Your task to perform on an android device: Go to Yahoo.com Image 0: 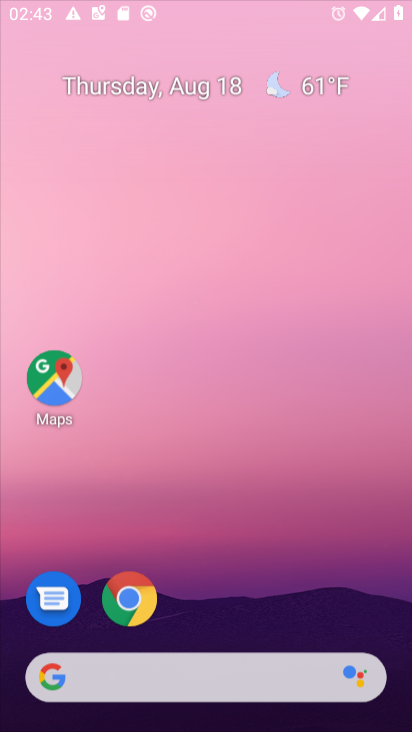
Step 0: press home button
Your task to perform on an android device: Go to Yahoo.com Image 1: 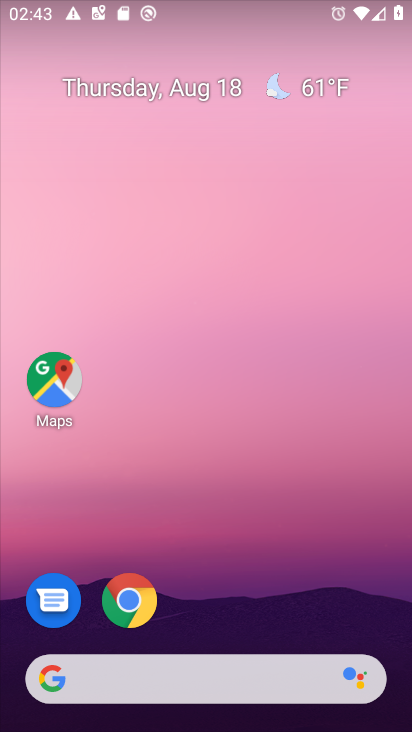
Step 1: click (56, 680)
Your task to perform on an android device: Go to Yahoo.com Image 2: 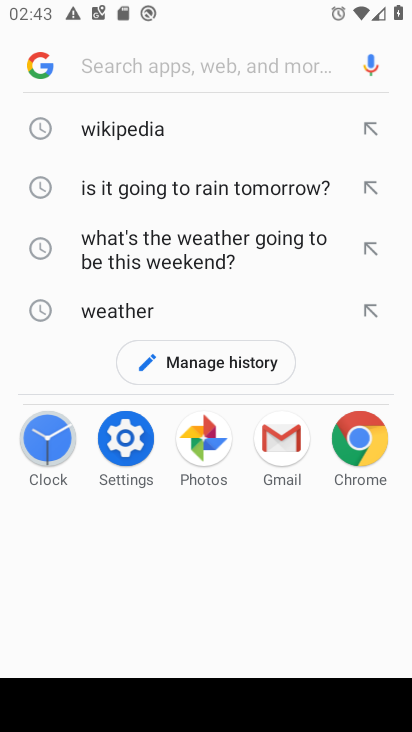
Step 2: type "Yahoo.com"
Your task to perform on an android device: Go to Yahoo.com Image 3: 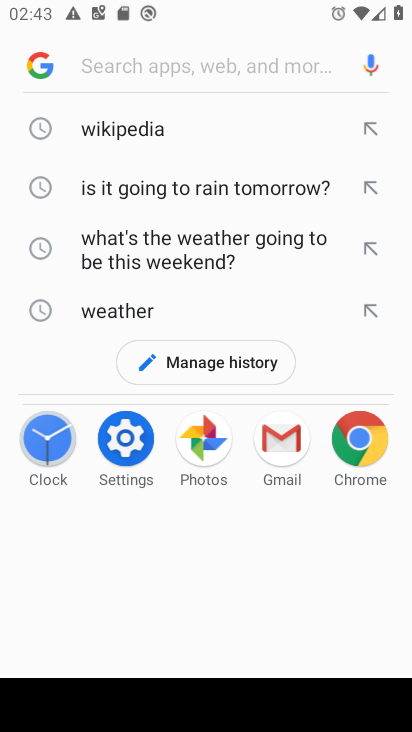
Step 3: click (123, 70)
Your task to perform on an android device: Go to Yahoo.com Image 4: 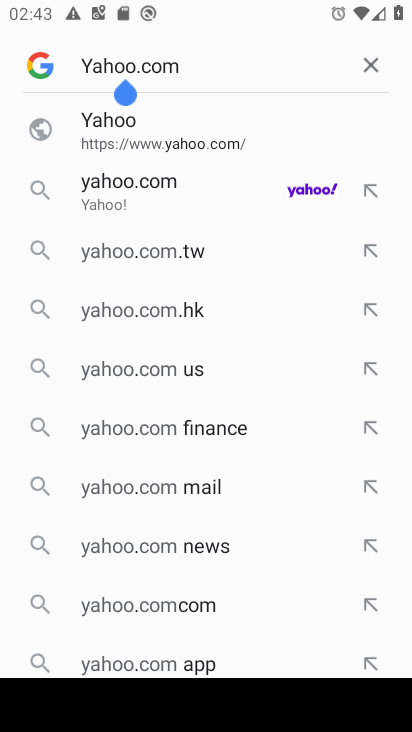
Step 4: press enter
Your task to perform on an android device: Go to Yahoo.com Image 5: 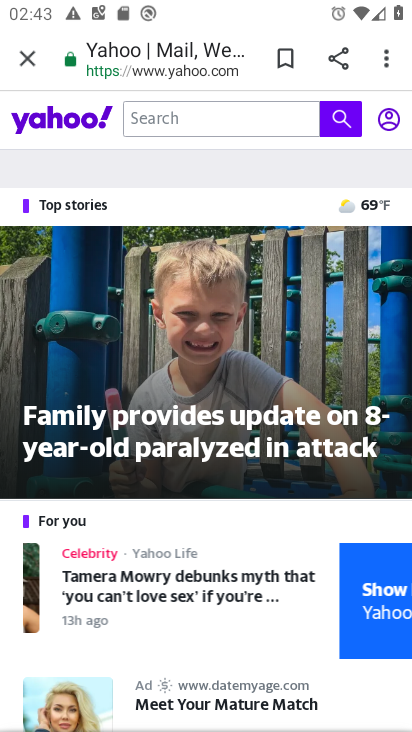
Step 5: task complete